Your task to perform on an android device: snooze an email in the gmail app Image 0: 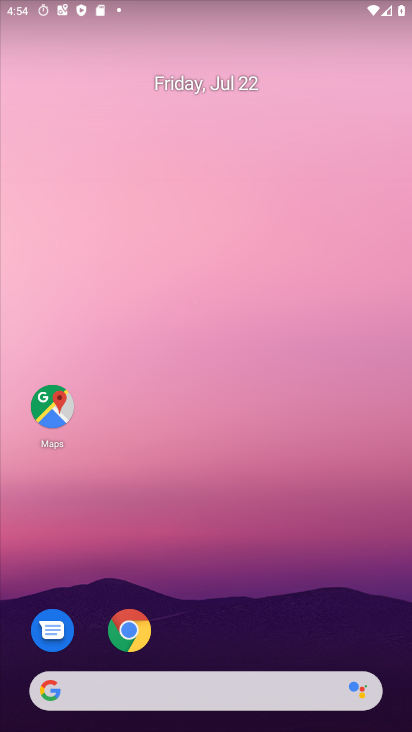
Step 0: drag from (126, 694) to (107, 34)
Your task to perform on an android device: snooze an email in the gmail app Image 1: 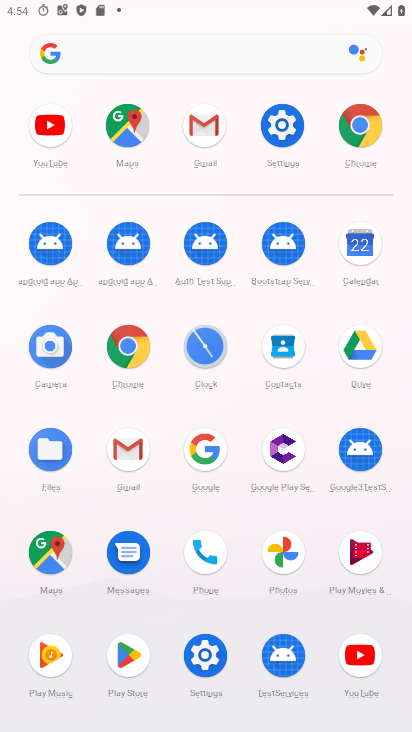
Step 1: click (127, 435)
Your task to perform on an android device: snooze an email in the gmail app Image 2: 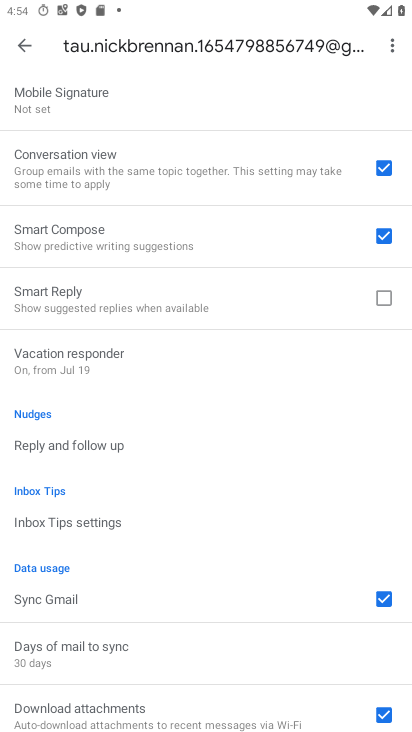
Step 2: press back button
Your task to perform on an android device: snooze an email in the gmail app Image 3: 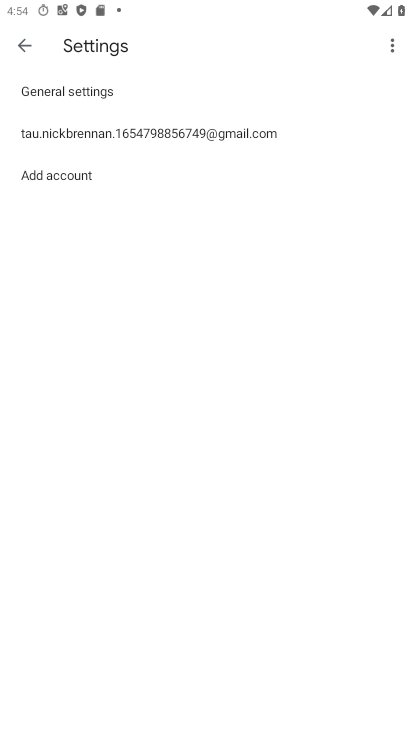
Step 3: press back button
Your task to perform on an android device: snooze an email in the gmail app Image 4: 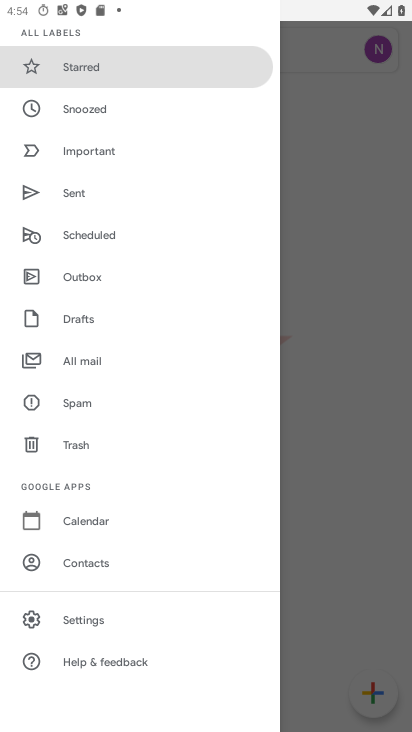
Step 4: drag from (111, 170) to (152, 446)
Your task to perform on an android device: snooze an email in the gmail app Image 5: 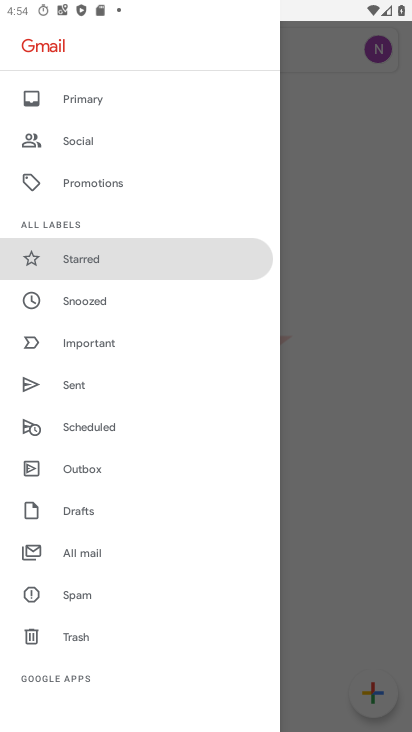
Step 5: click (99, 290)
Your task to perform on an android device: snooze an email in the gmail app Image 6: 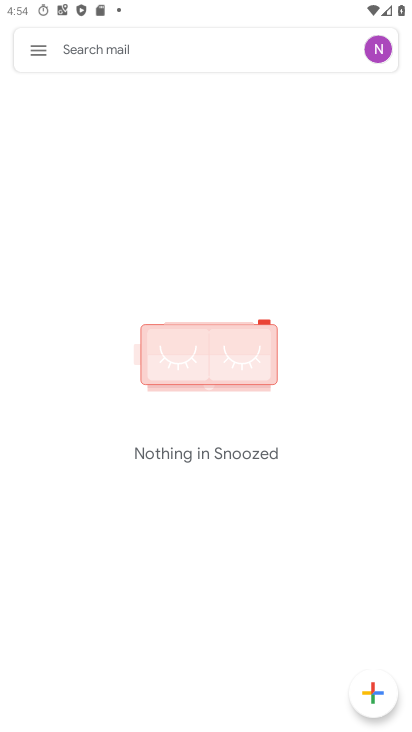
Step 6: task complete